Your task to perform on an android device: Open Reddit.com Image 0: 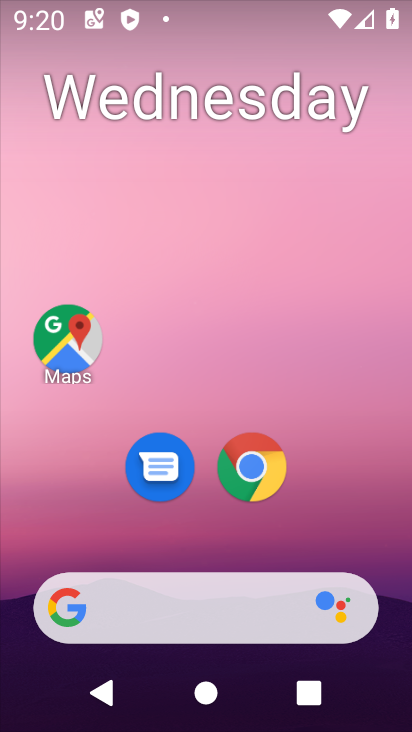
Step 0: click (248, 465)
Your task to perform on an android device: Open Reddit.com Image 1: 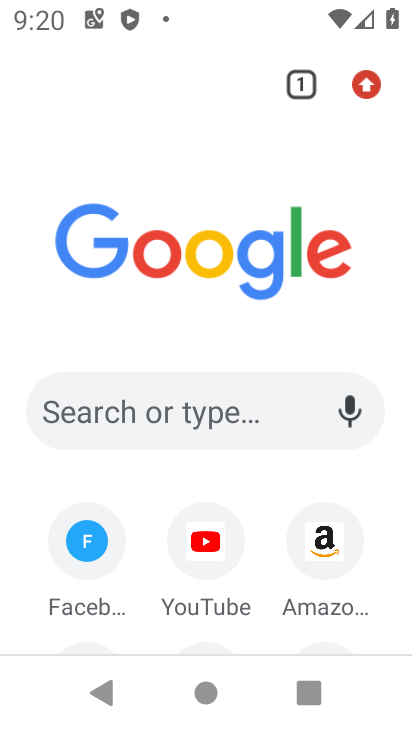
Step 1: click (177, 413)
Your task to perform on an android device: Open Reddit.com Image 2: 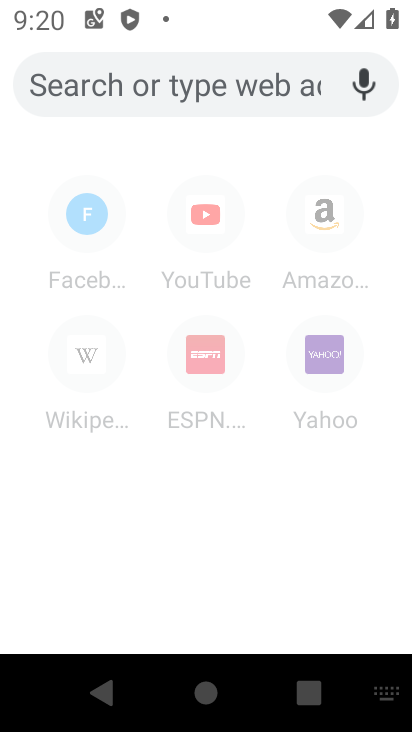
Step 2: type "Reddit.com"
Your task to perform on an android device: Open Reddit.com Image 3: 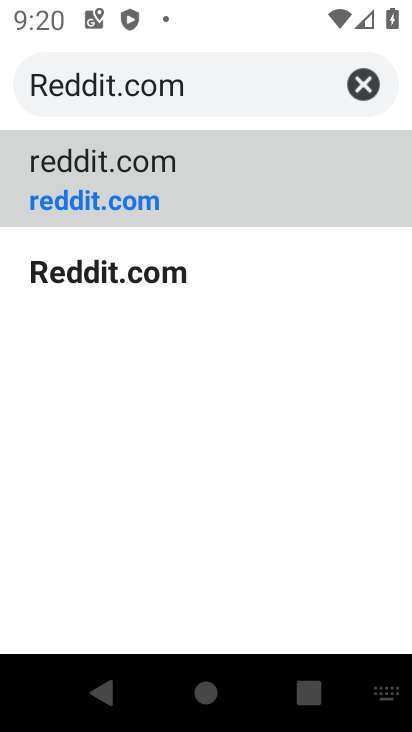
Step 3: click (191, 180)
Your task to perform on an android device: Open Reddit.com Image 4: 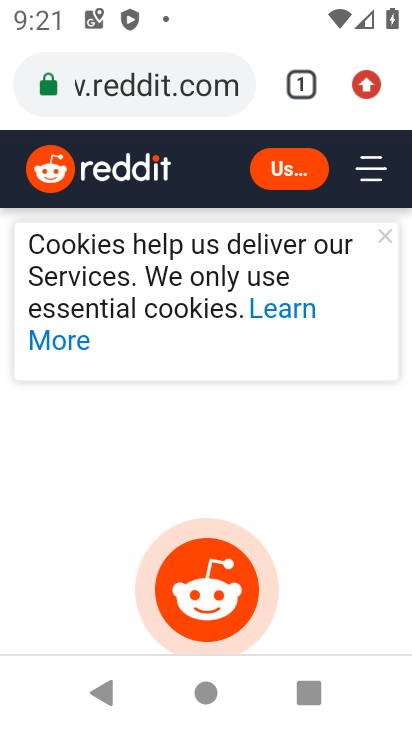
Step 4: task complete